Your task to perform on an android device: See recent photos Image 0: 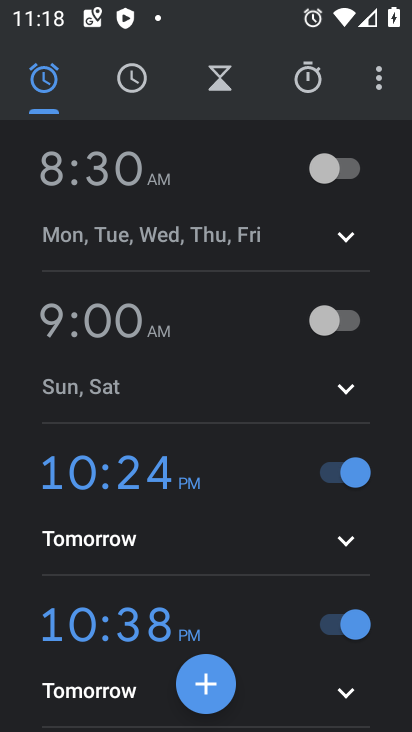
Step 0: press home button
Your task to perform on an android device: See recent photos Image 1: 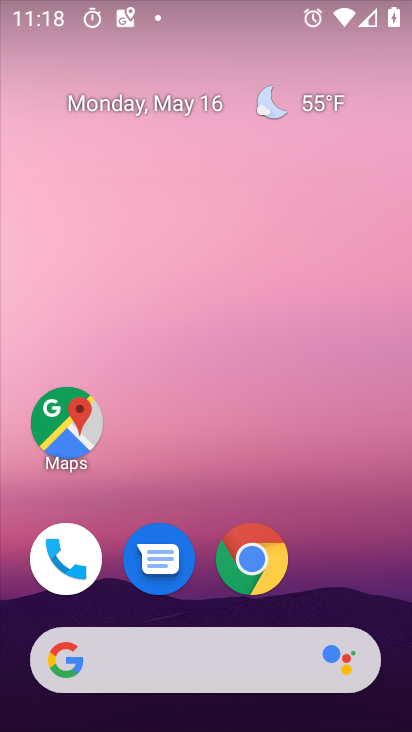
Step 1: drag from (363, 546) to (334, 19)
Your task to perform on an android device: See recent photos Image 2: 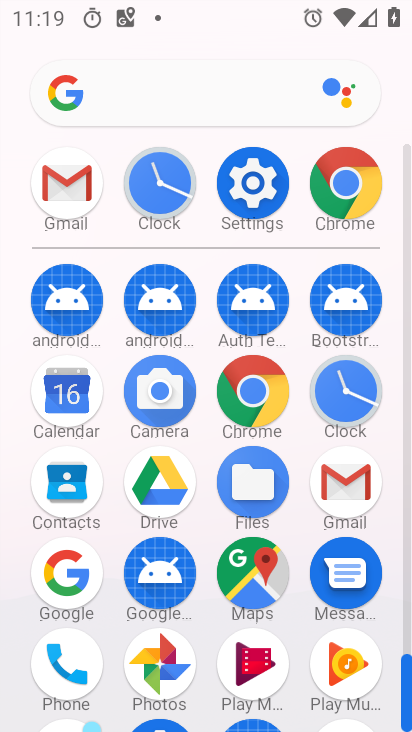
Step 2: click (162, 658)
Your task to perform on an android device: See recent photos Image 3: 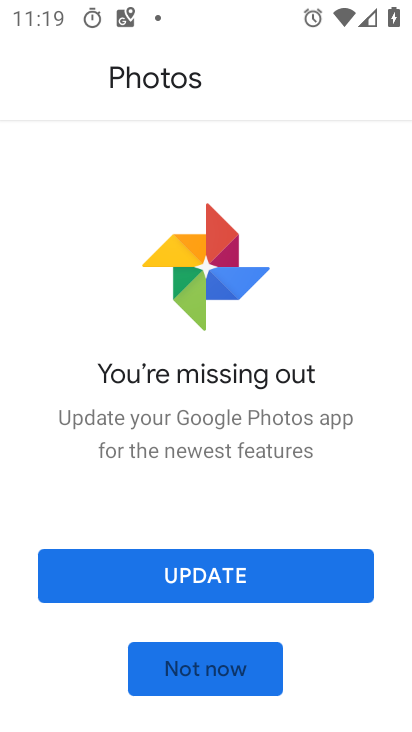
Step 3: click (217, 573)
Your task to perform on an android device: See recent photos Image 4: 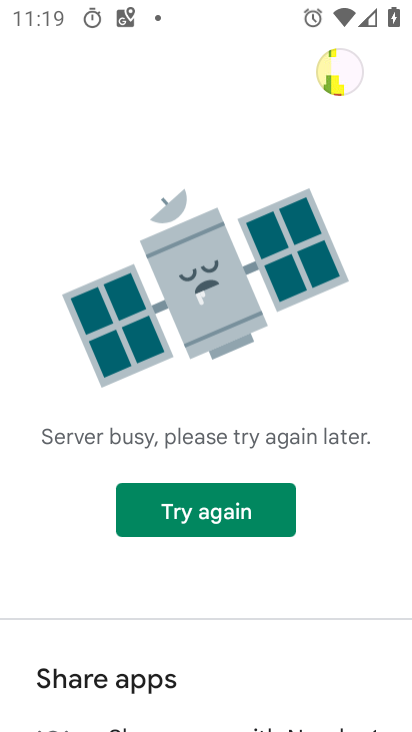
Step 4: task complete